Your task to perform on an android device: toggle pop-ups in chrome Image 0: 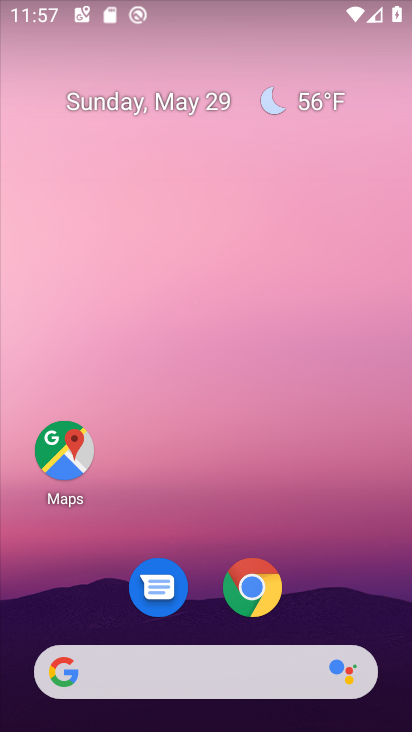
Step 0: drag from (345, 624) to (238, 16)
Your task to perform on an android device: toggle pop-ups in chrome Image 1: 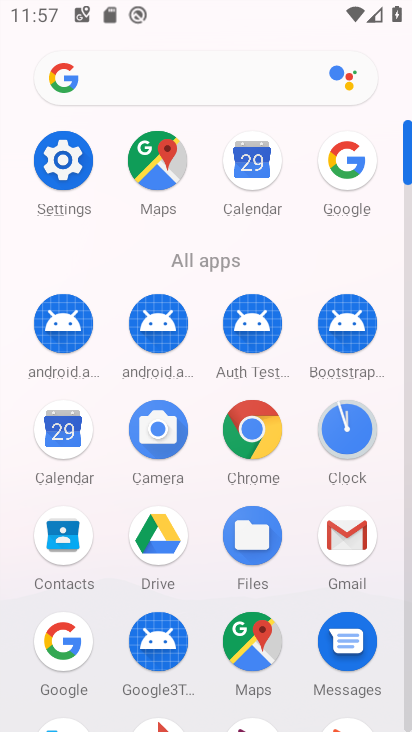
Step 1: click (263, 444)
Your task to perform on an android device: toggle pop-ups in chrome Image 2: 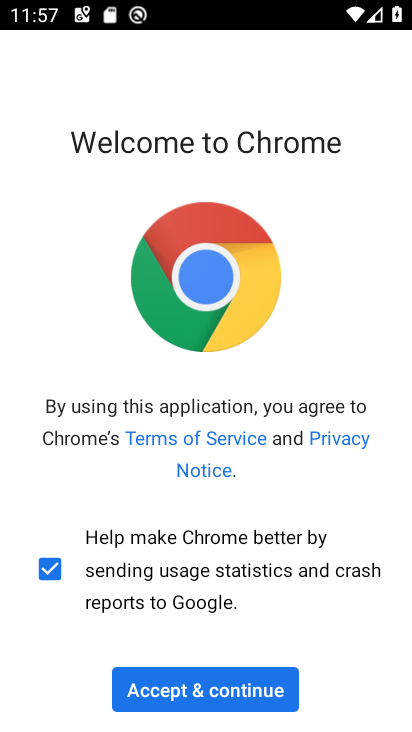
Step 2: click (243, 700)
Your task to perform on an android device: toggle pop-ups in chrome Image 3: 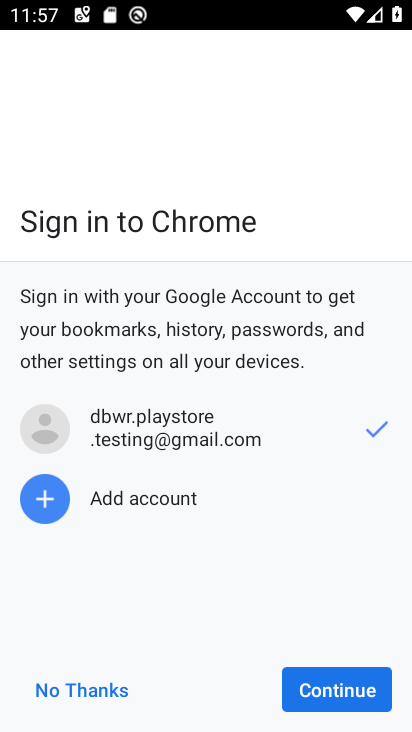
Step 3: click (342, 699)
Your task to perform on an android device: toggle pop-ups in chrome Image 4: 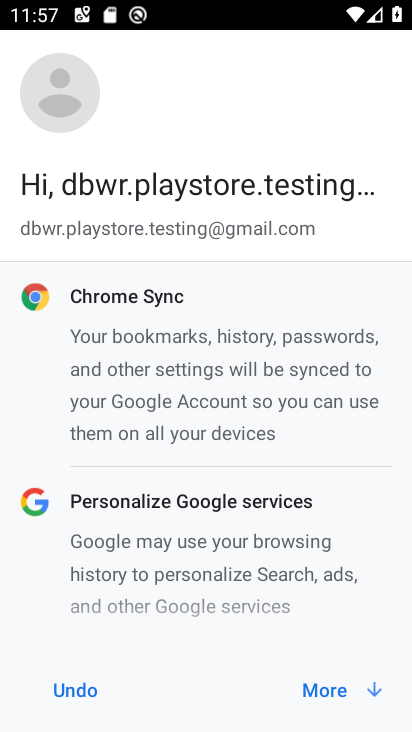
Step 4: click (337, 694)
Your task to perform on an android device: toggle pop-ups in chrome Image 5: 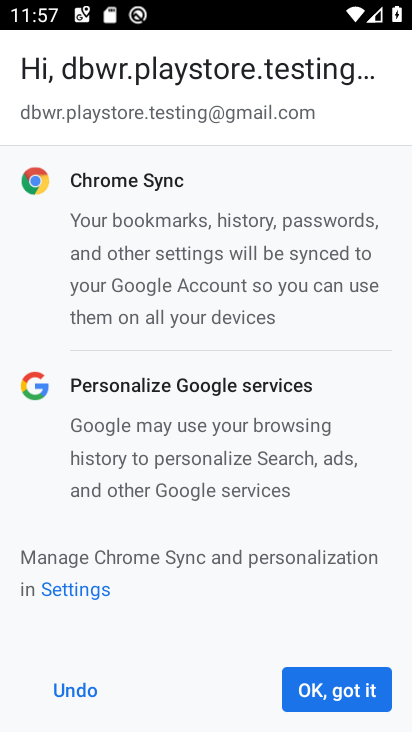
Step 5: click (337, 694)
Your task to perform on an android device: toggle pop-ups in chrome Image 6: 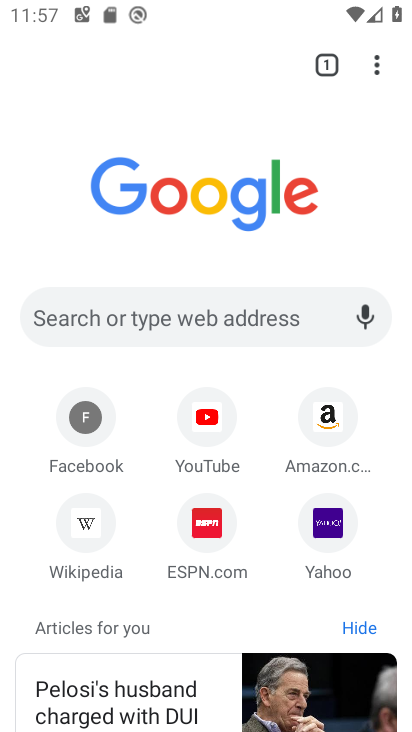
Step 6: click (379, 73)
Your task to perform on an android device: toggle pop-ups in chrome Image 7: 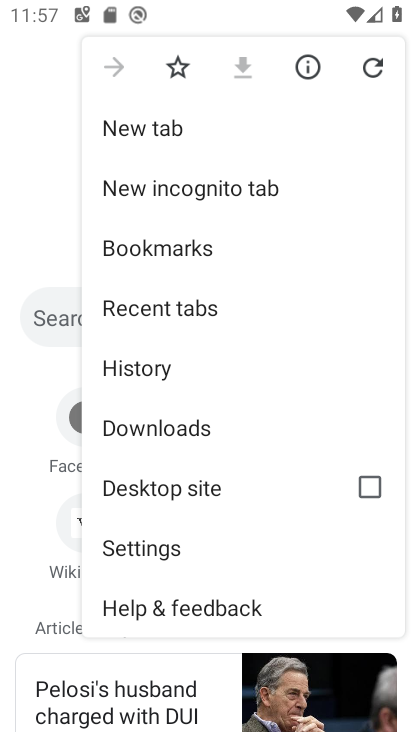
Step 7: drag from (234, 568) to (200, 209)
Your task to perform on an android device: toggle pop-ups in chrome Image 8: 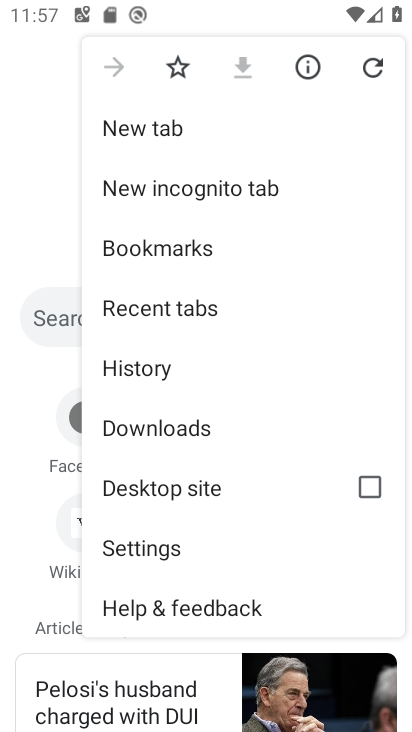
Step 8: click (148, 556)
Your task to perform on an android device: toggle pop-ups in chrome Image 9: 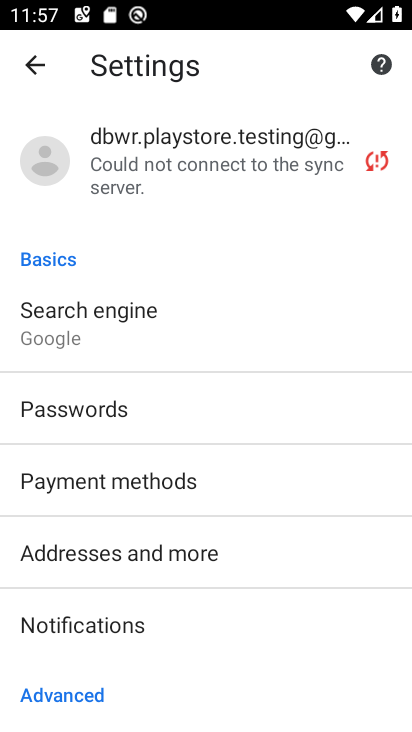
Step 9: drag from (137, 646) to (171, 104)
Your task to perform on an android device: toggle pop-ups in chrome Image 10: 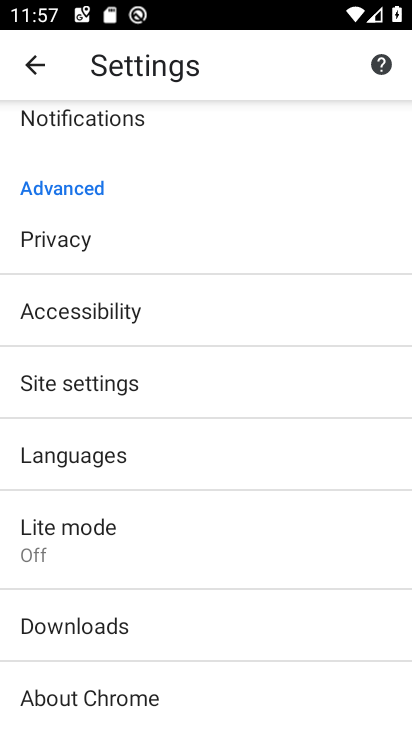
Step 10: click (127, 388)
Your task to perform on an android device: toggle pop-ups in chrome Image 11: 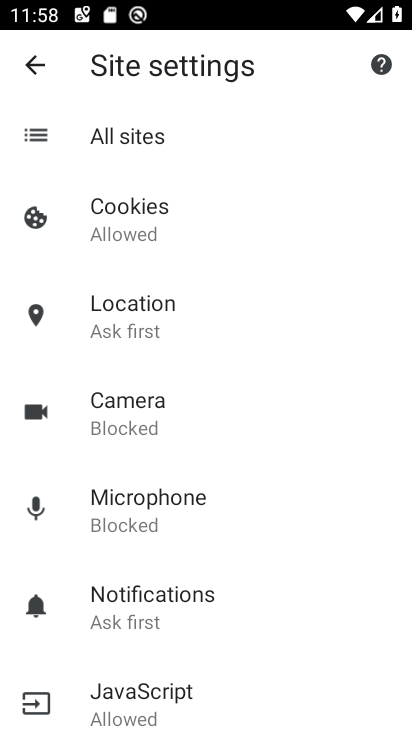
Step 11: drag from (176, 647) to (165, 351)
Your task to perform on an android device: toggle pop-ups in chrome Image 12: 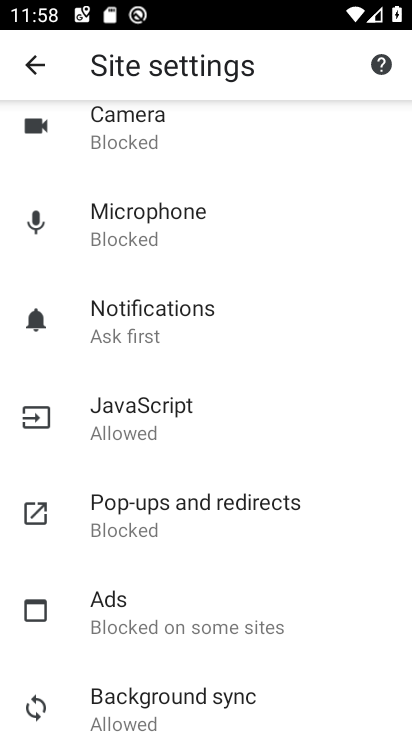
Step 12: click (190, 509)
Your task to perform on an android device: toggle pop-ups in chrome Image 13: 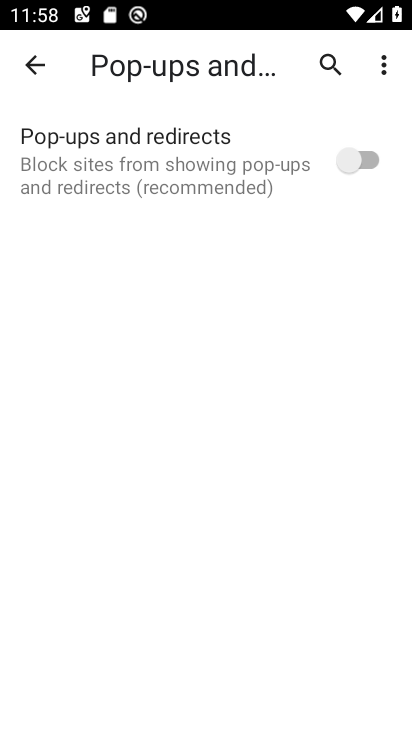
Step 13: click (376, 168)
Your task to perform on an android device: toggle pop-ups in chrome Image 14: 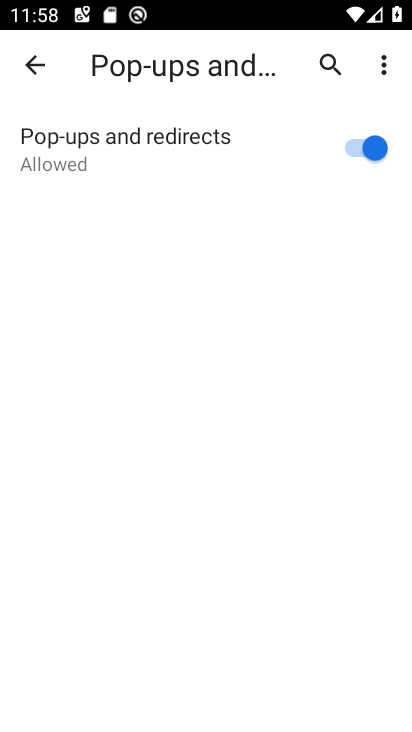
Step 14: task complete